Your task to perform on an android device: Open calendar and show me the fourth week of next month Image 0: 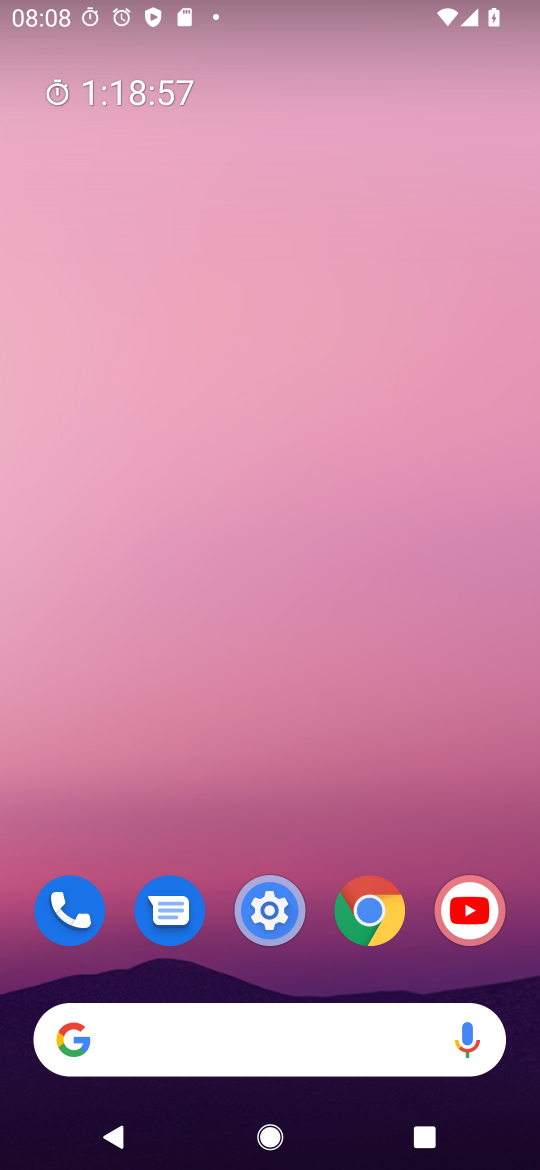
Step 0: drag from (304, 1033) to (304, 181)
Your task to perform on an android device: Open calendar and show me the fourth week of next month Image 1: 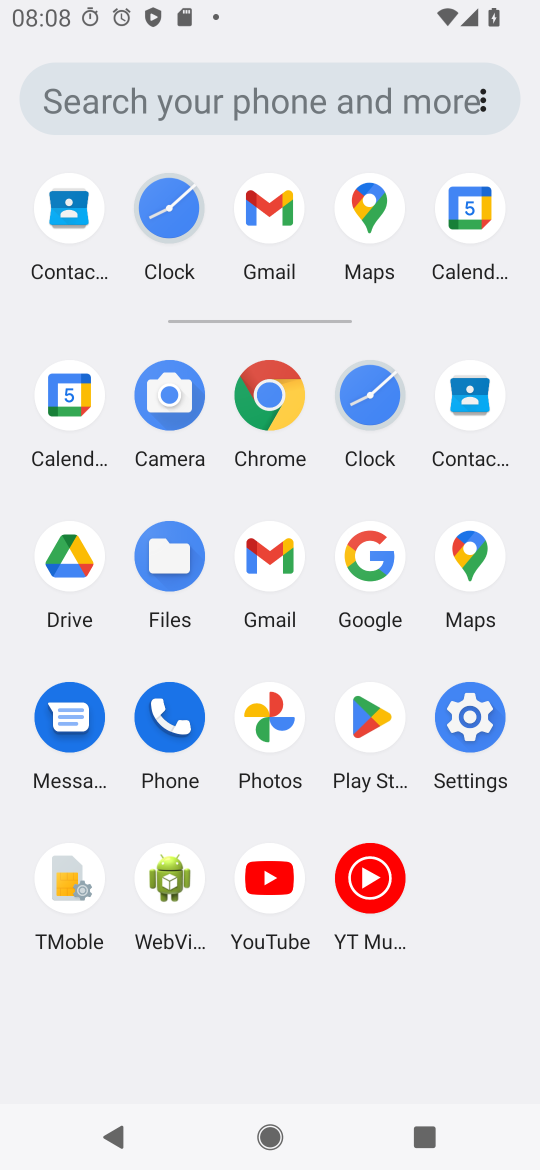
Step 1: click (450, 200)
Your task to perform on an android device: Open calendar and show me the fourth week of next month Image 2: 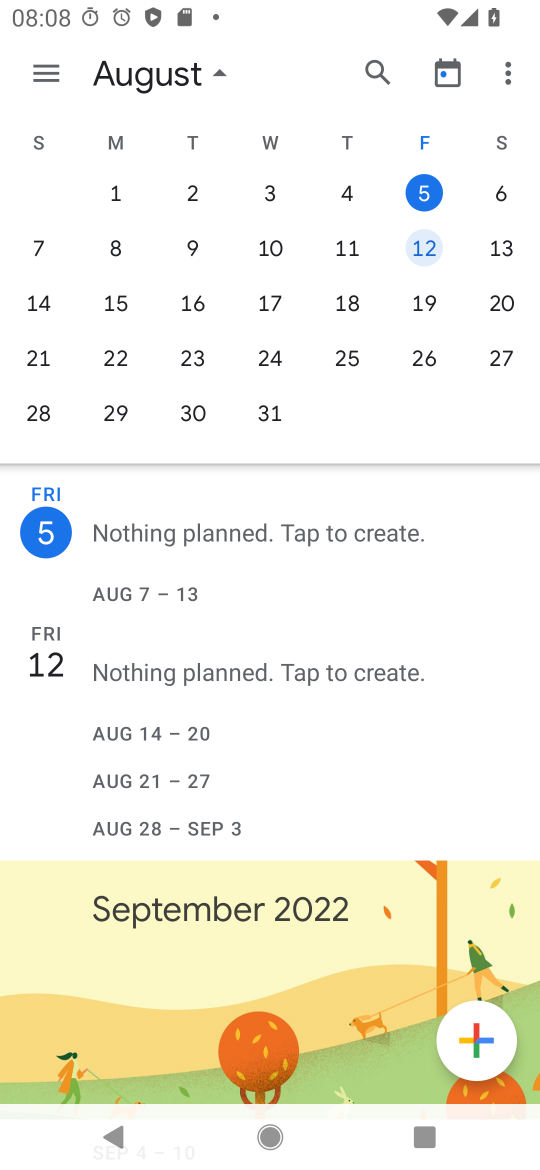
Step 2: press home button
Your task to perform on an android device: Open calendar and show me the fourth week of next month Image 3: 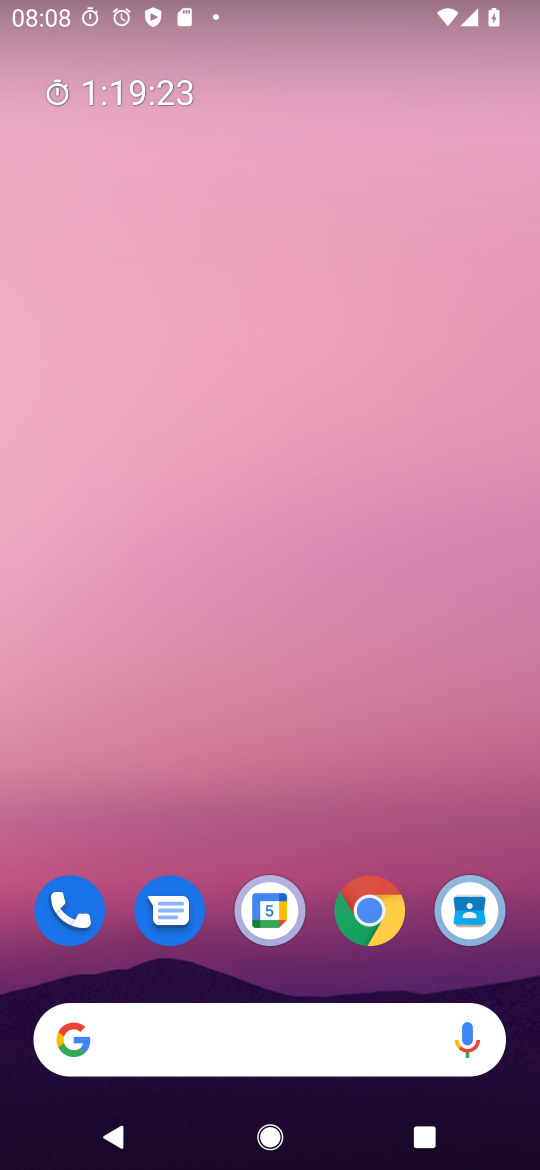
Step 3: drag from (282, 1053) to (289, 670)
Your task to perform on an android device: Open calendar and show me the fourth week of next month Image 4: 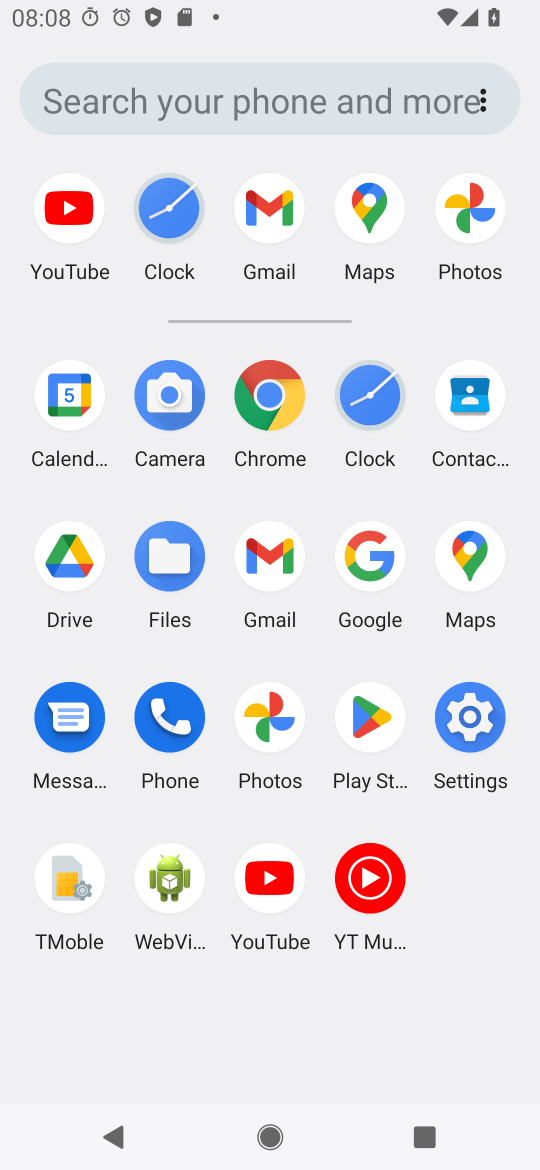
Step 4: click (82, 410)
Your task to perform on an android device: Open calendar and show me the fourth week of next month Image 5: 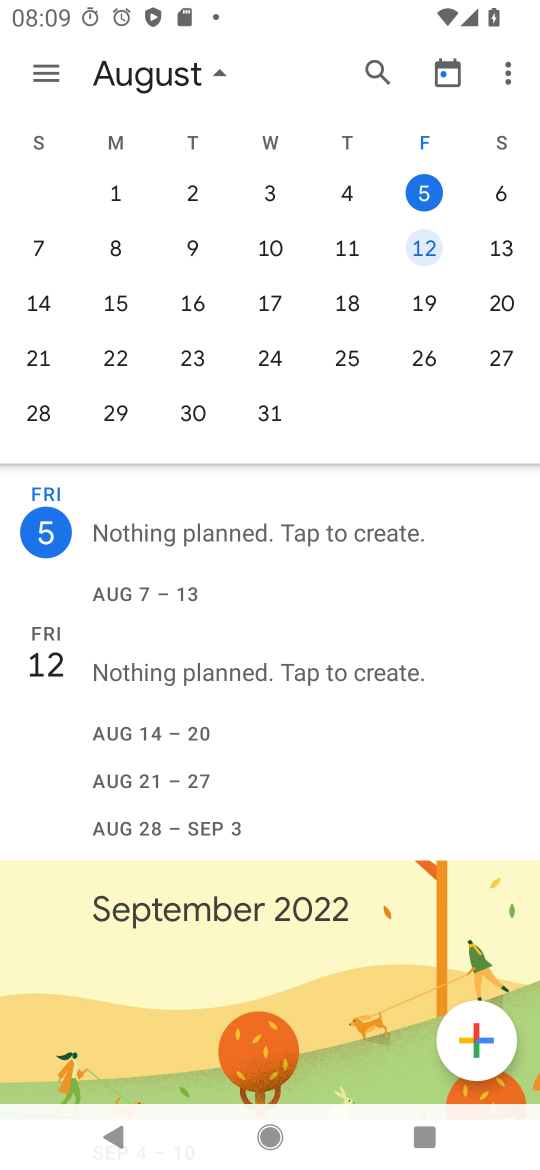
Step 5: drag from (482, 277) to (18, 288)
Your task to perform on an android device: Open calendar and show me the fourth week of next month Image 6: 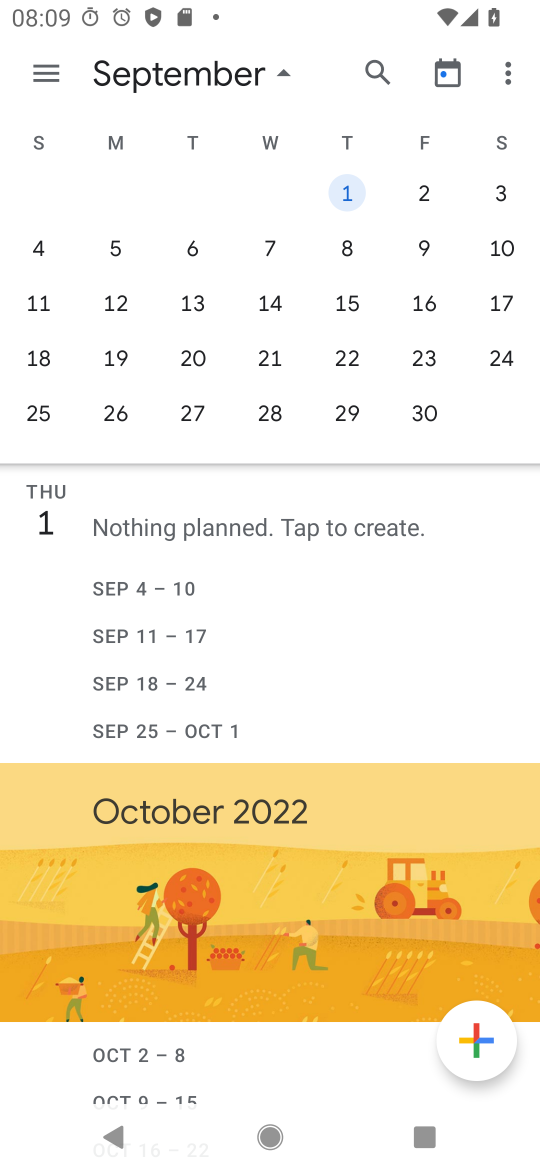
Step 6: click (260, 349)
Your task to perform on an android device: Open calendar and show me the fourth week of next month Image 7: 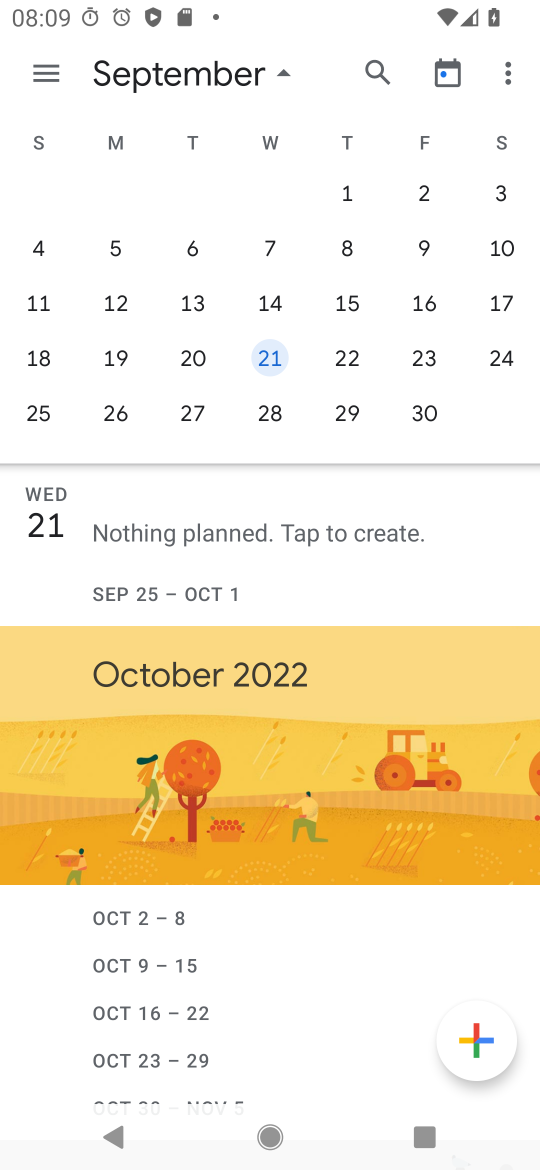
Step 7: click (17, 65)
Your task to perform on an android device: Open calendar and show me the fourth week of next month Image 8: 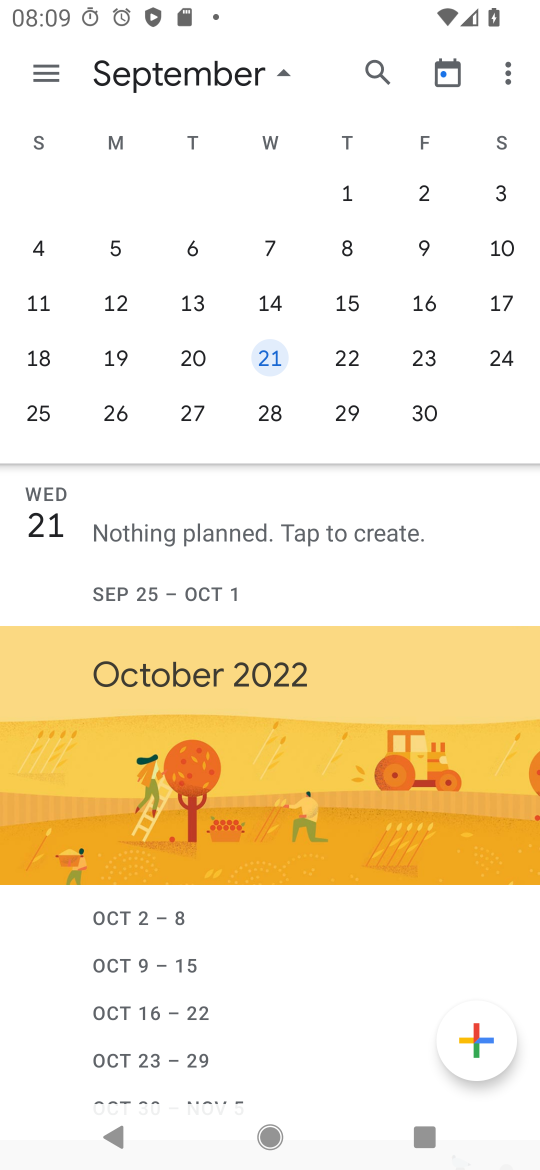
Step 8: click (37, 65)
Your task to perform on an android device: Open calendar and show me the fourth week of next month Image 9: 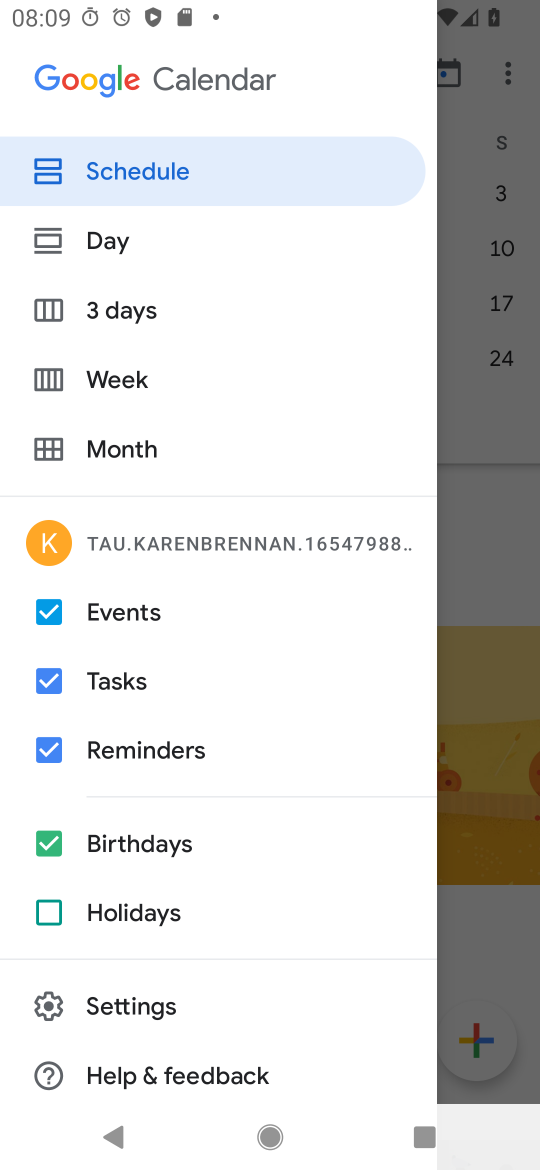
Step 9: click (133, 375)
Your task to perform on an android device: Open calendar and show me the fourth week of next month Image 10: 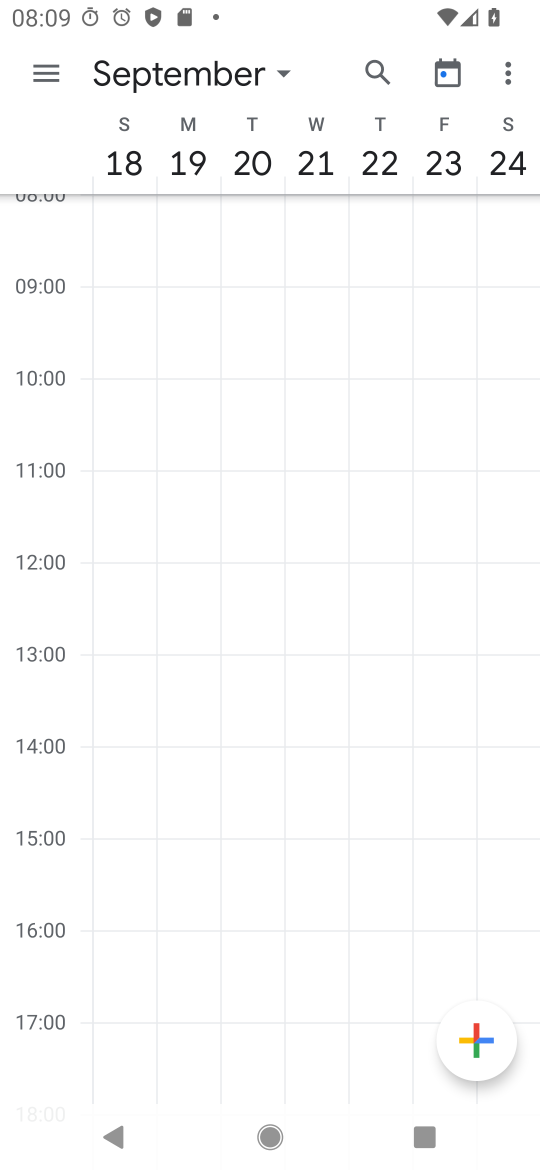
Step 10: task complete